Your task to perform on an android device: visit the assistant section in the google photos Image 0: 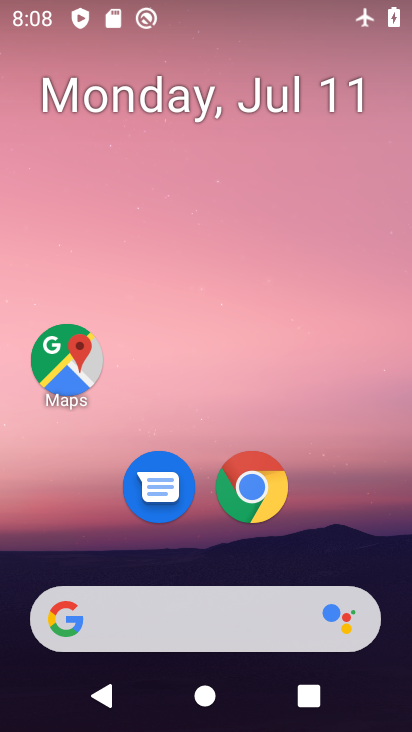
Step 0: drag from (181, 564) to (271, 11)
Your task to perform on an android device: visit the assistant section in the google photos Image 1: 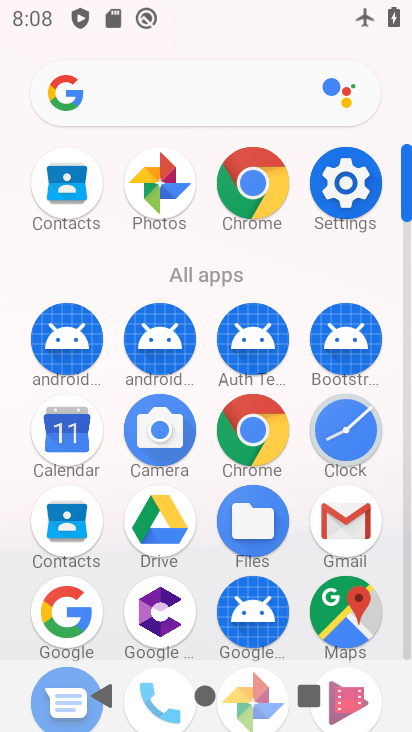
Step 1: click (146, 176)
Your task to perform on an android device: visit the assistant section in the google photos Image 2: 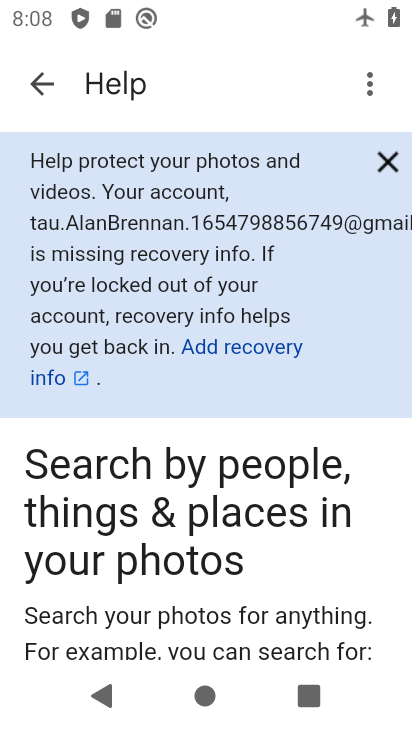
Step 2: click (41, 80)
Your task to perform on an android device: visit the assistant section in the google photos Image 3: 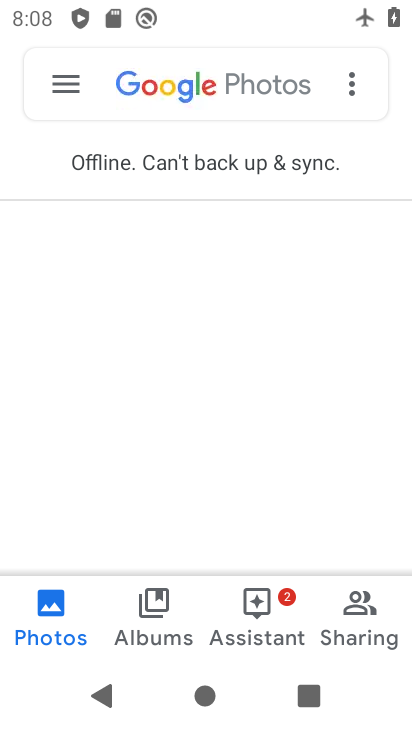
Step 3: click (258, 629)
Your task to perform on an android device: visit the assistant section in the google photos Image 4: 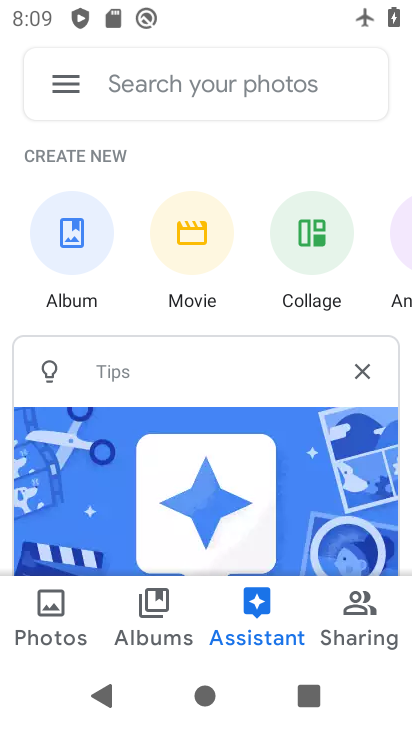
Step 4: task complete